Your task to perform on an android device: star an email in the gmail app Image 0: 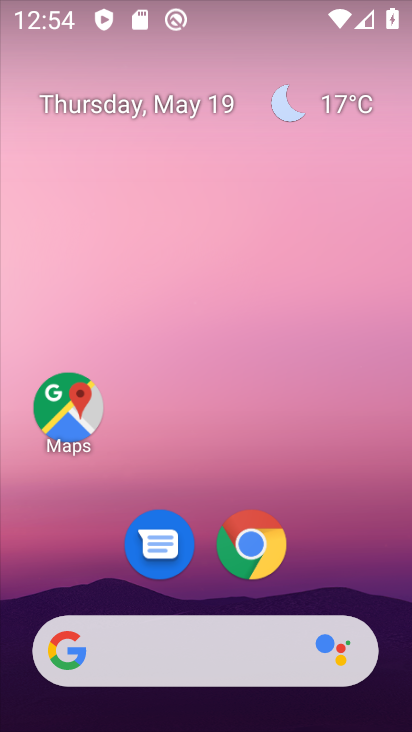
Step 0: drag from (170, 719) to (212, 108)
Your task to perform on an android device: star an email in the gmail app Image 1: 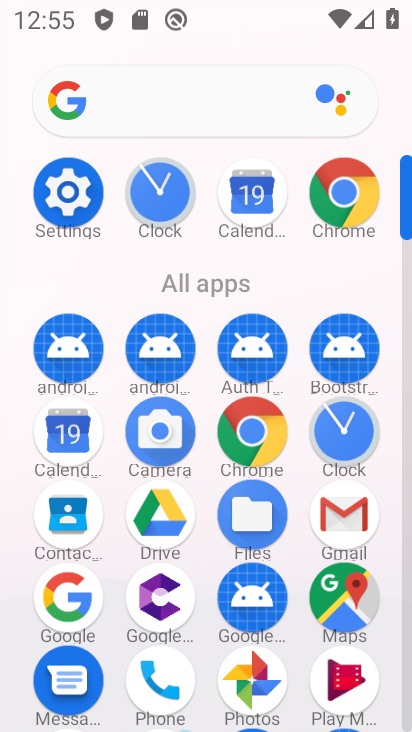
Step 1: click (345, 512)
Your task to perform on an android device: star an email in the gmail app Image 2: 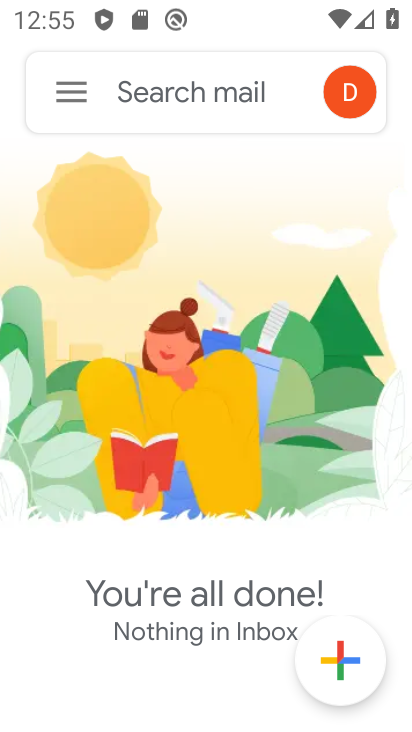
Step 2: task complete